Your task to perform on an android device: search for starred emails in the gmail app Image 0: 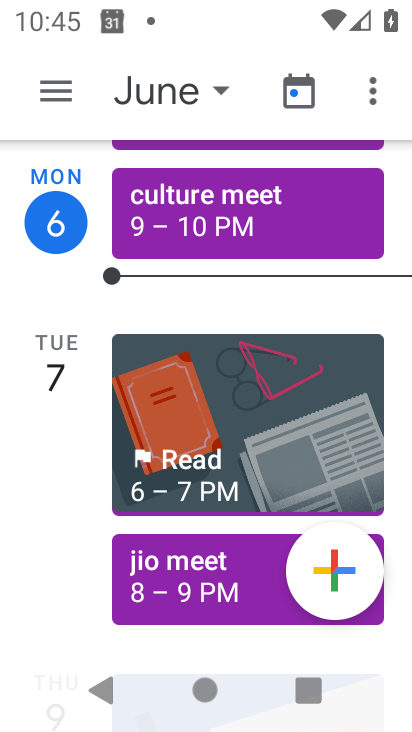
Step 0: press home button
Your task to perform on an android device: search for starred emails in the gmail app Image 1: 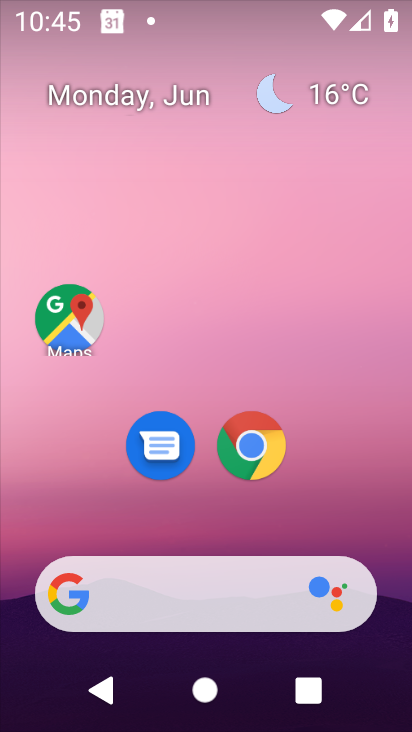
Step 1: drag from (233, 538) to (283, 82)
Your task to perform on an android device: search for starred emails in the gmail app Image 2: 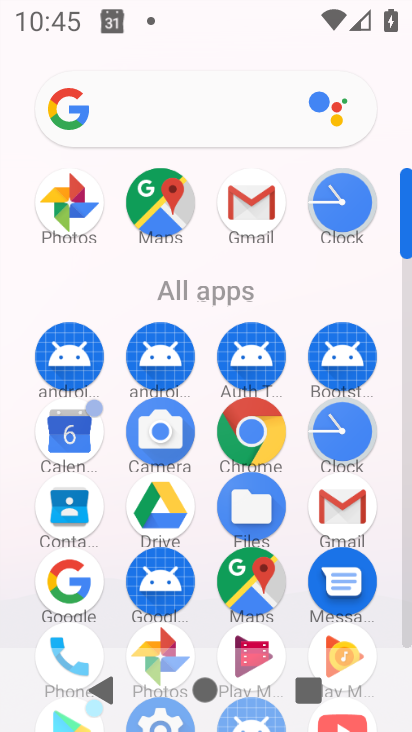
Step 2: click (249, 210)
Your task to perform on an android device: search for starred emails in the gmail app Image 3: 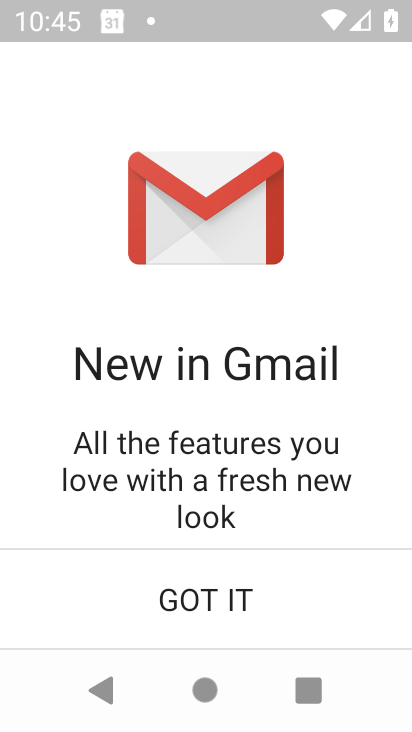
Step 3: click (219, 588)
Your task to perform on an android device: search for starred emails in the gmail app Image 4: 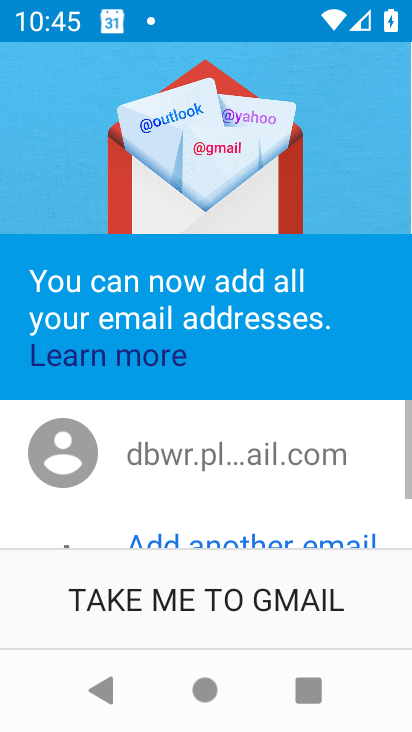
Step 4: click (311, 593)
Your task to perform on an android device: search for starred emails in the gmail app Image 5: 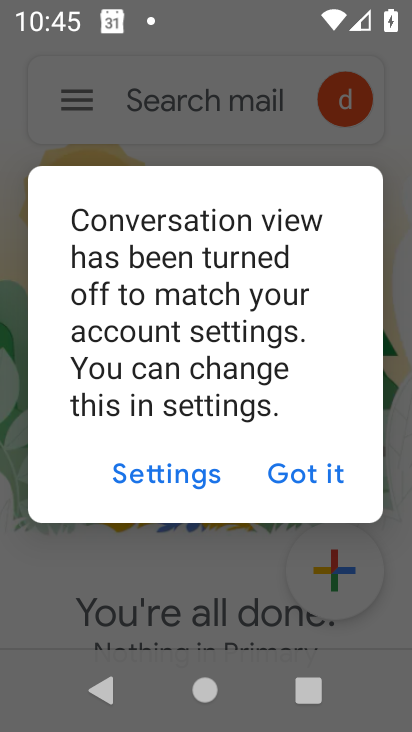
Step 5: click (322, 482)
Your task to perform on an android device: search for starred emails in the gmail app Image 6: 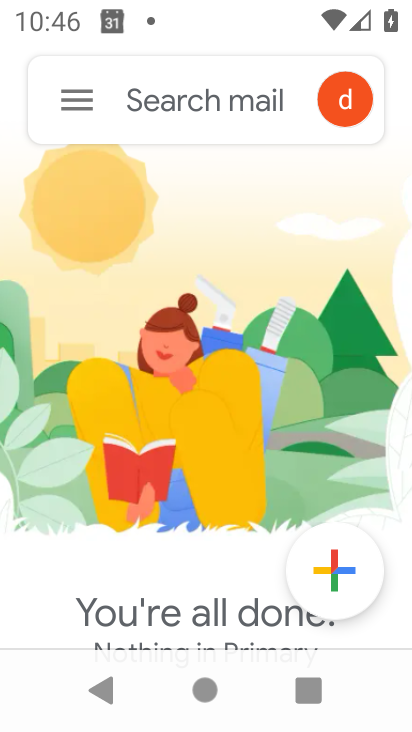
Step 6: click (74, 103)
Your task to perform on an android device: search for starred emails in the gmail app Image 7: 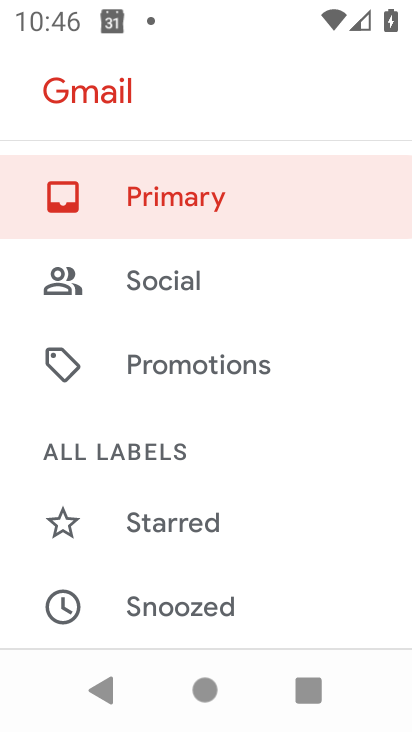
Step 7: click (177, 523)
Your task to perform on an android device: search for starred emails in the gmail app Image 8: 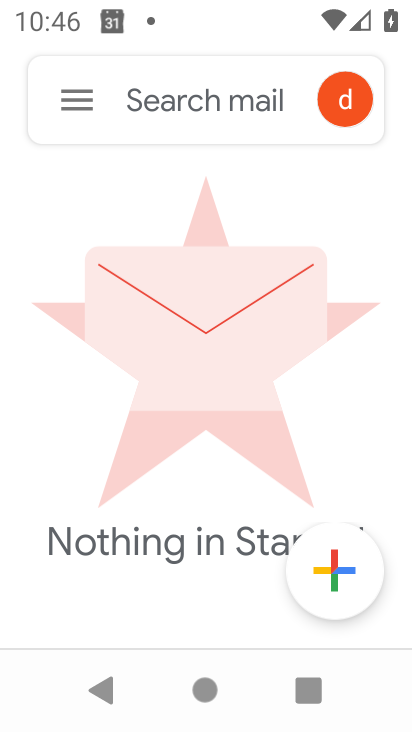
Step 8: task complete